Your task to perform on an android device: Search for good Italian restaurants Image 0: 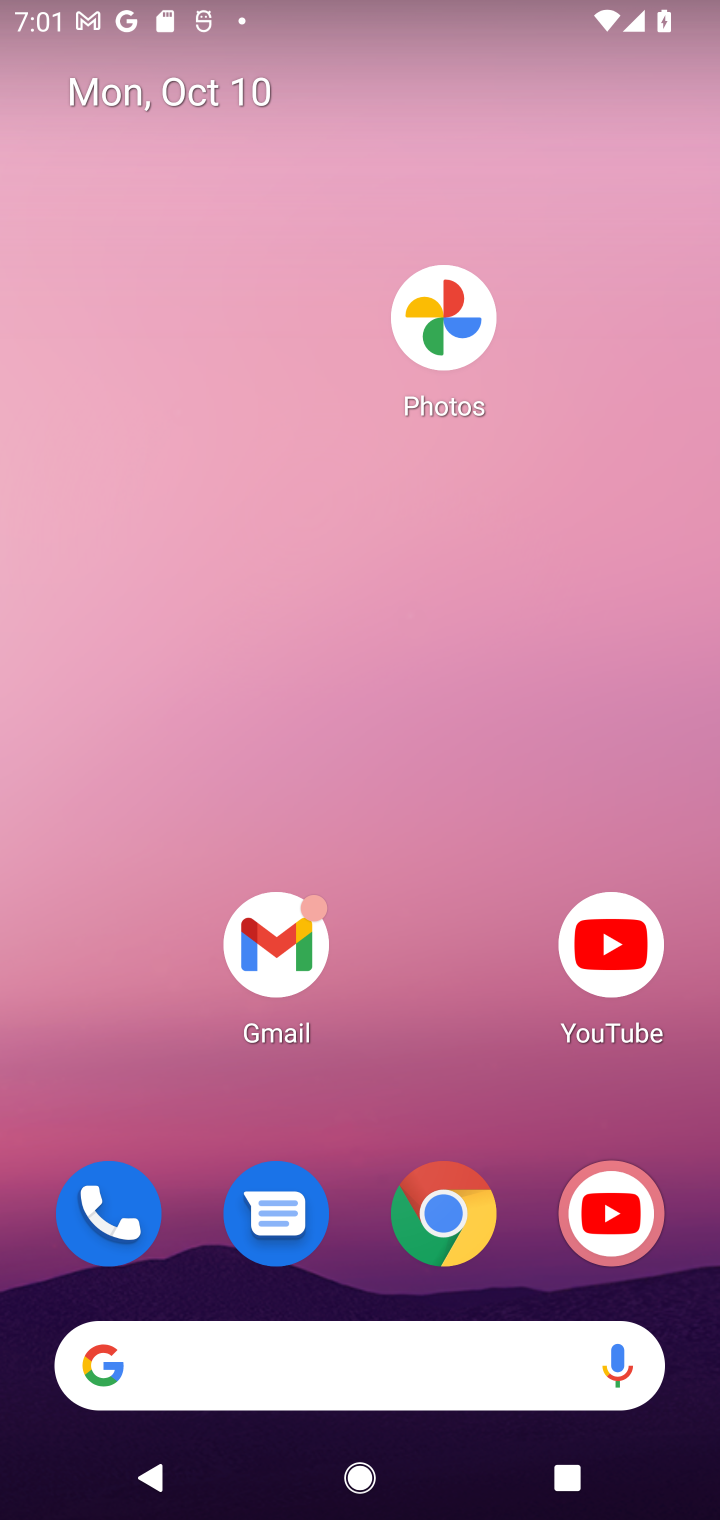
Step 0: click (346, 1355)
Your task to perform on an android device: Search for good Italian restaurants Image 1: 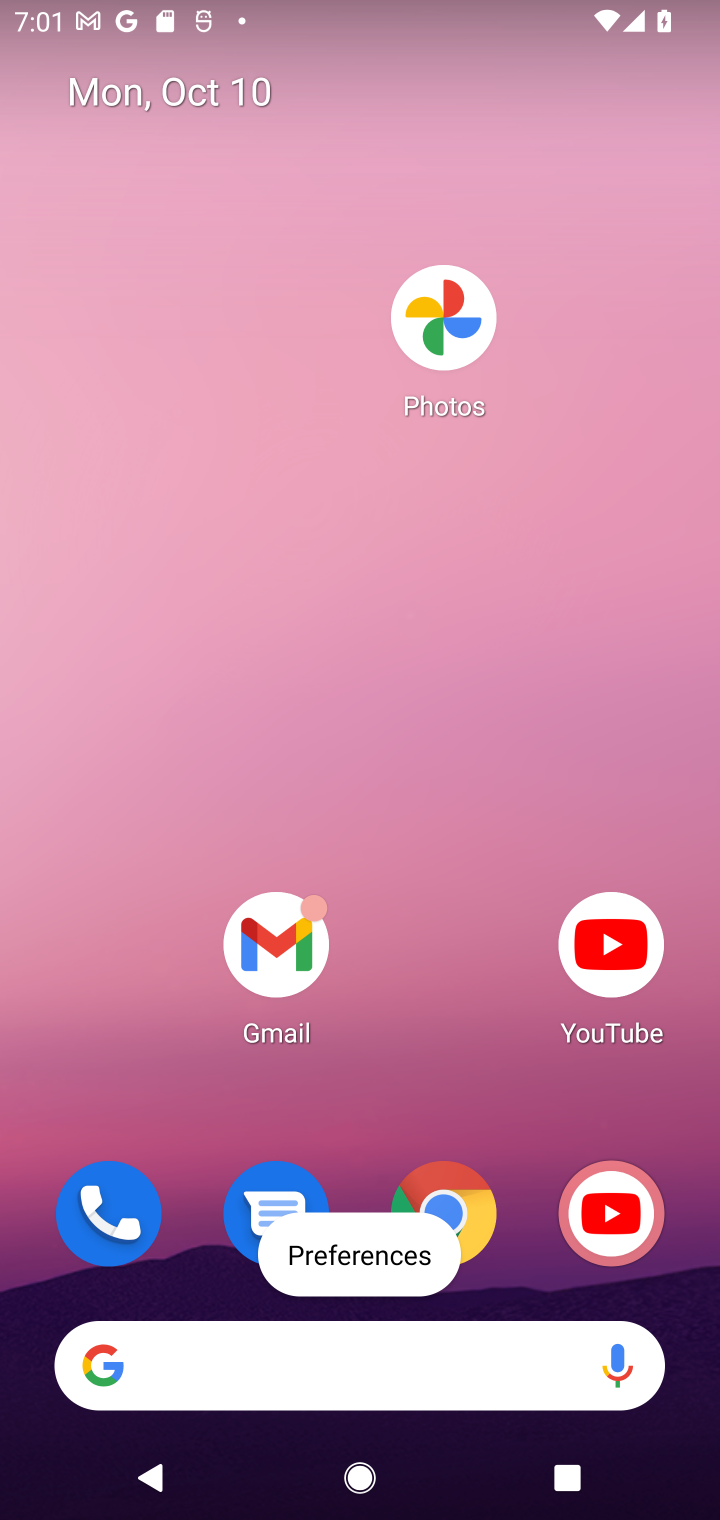
Step 1: click (344, 1374)
Your task to perform on an android device: Search for good Italian restaurants Image 2: 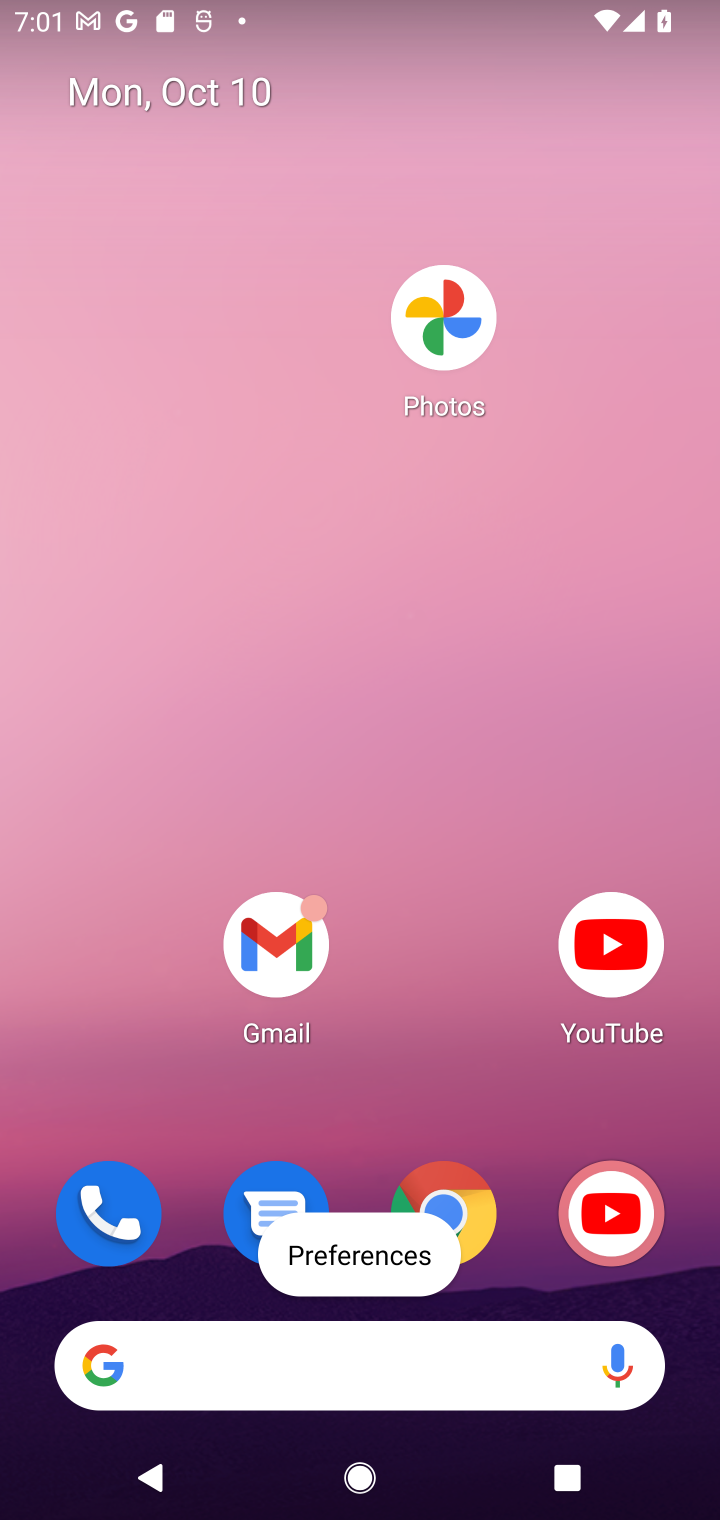
Step 2: click (278, 1371)
Your task to perform on an android device: Search for good Italian restaurants Image 3: 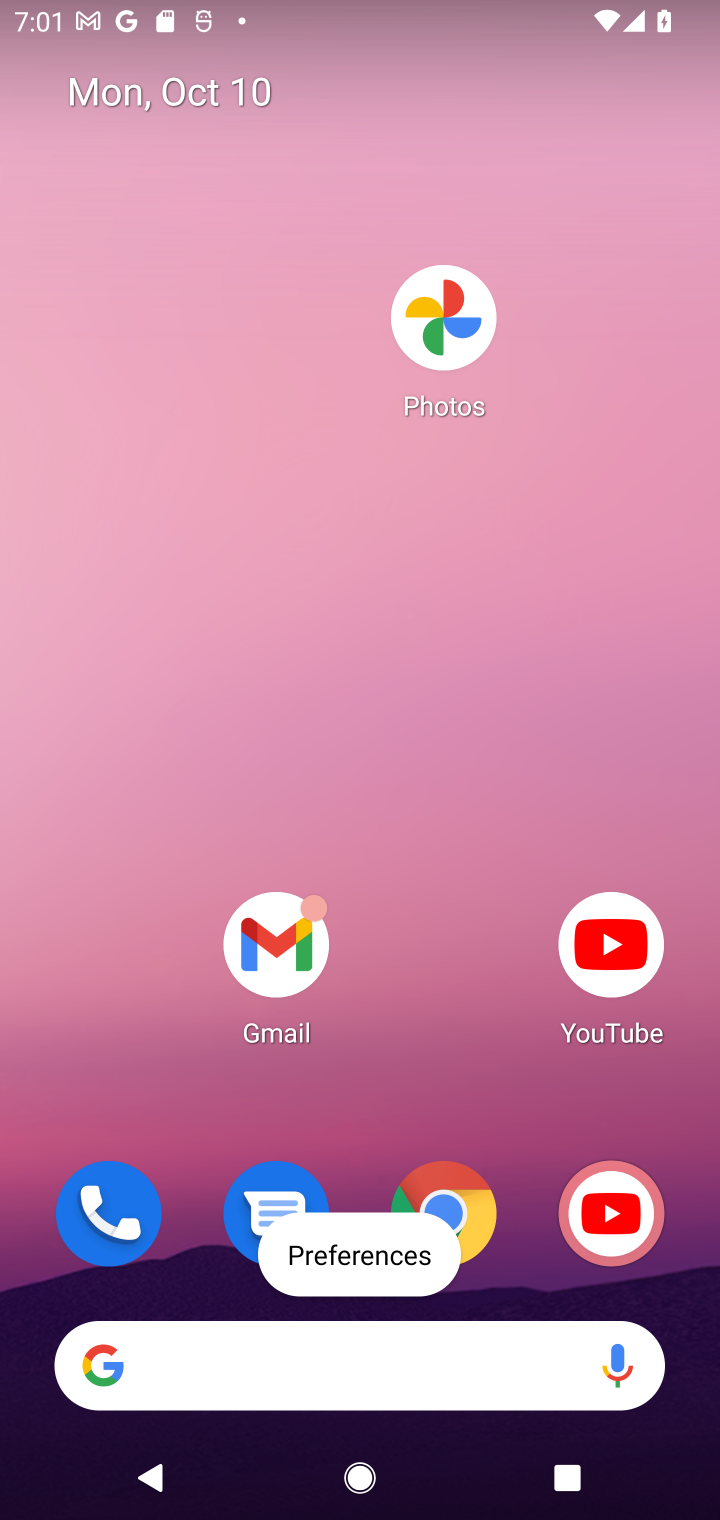
Step 3: click (355, 1333)
Your task to perform on an android device: Search for good Italian restaurants Image 4: 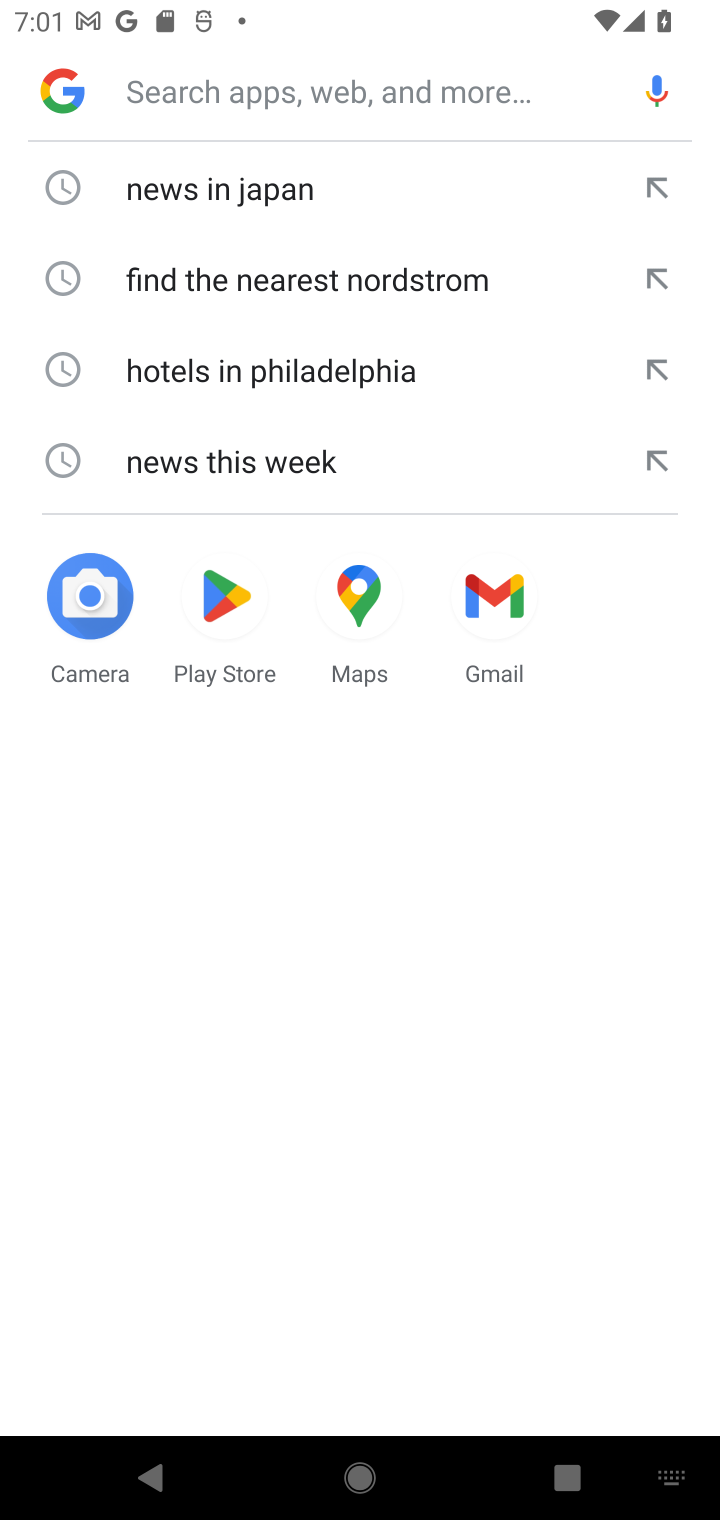
Step 4: type "good Italian restaurants"
Your task to perform on an android device: Search for good Italian restaurants Image 5: 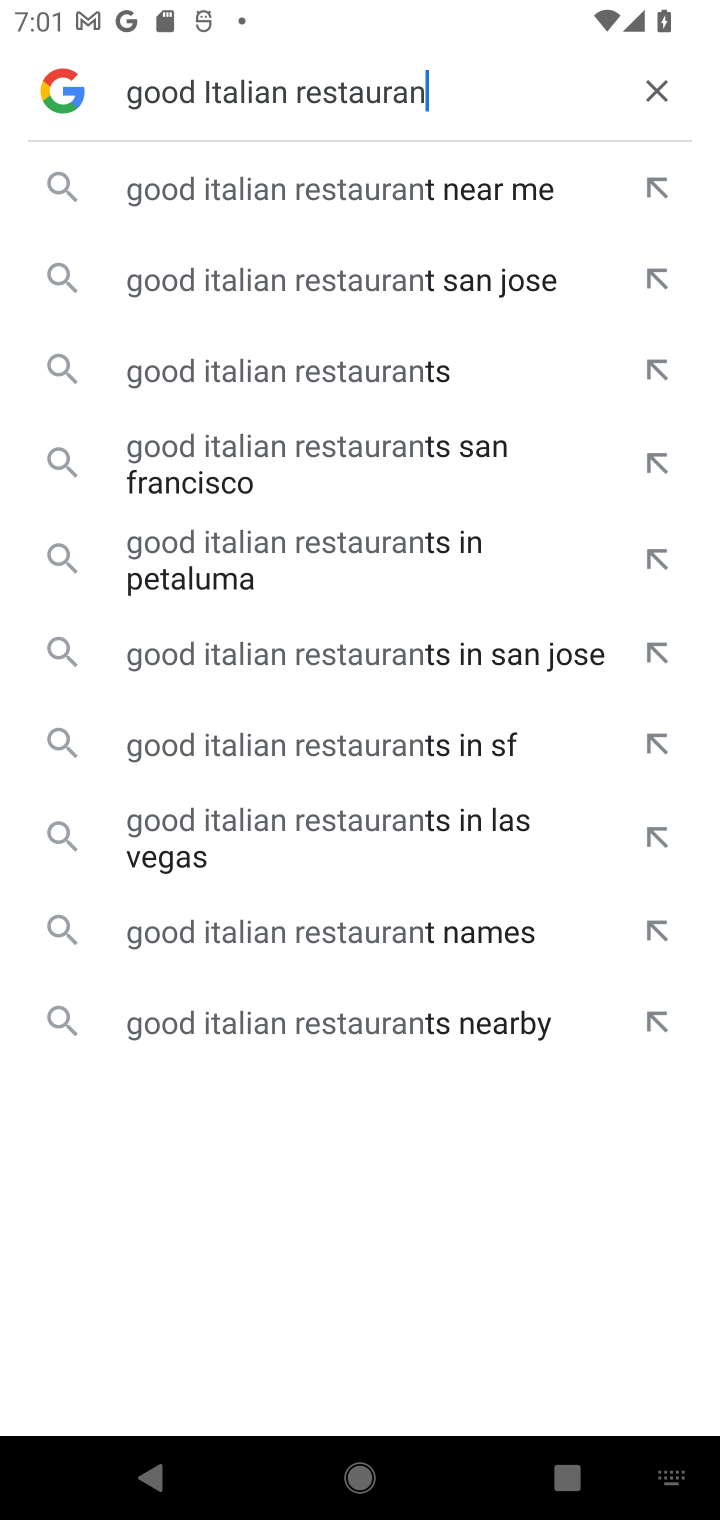
Step 5: type ""
Your task to perform on an android device: Search for good Italian restaurants Image 6: 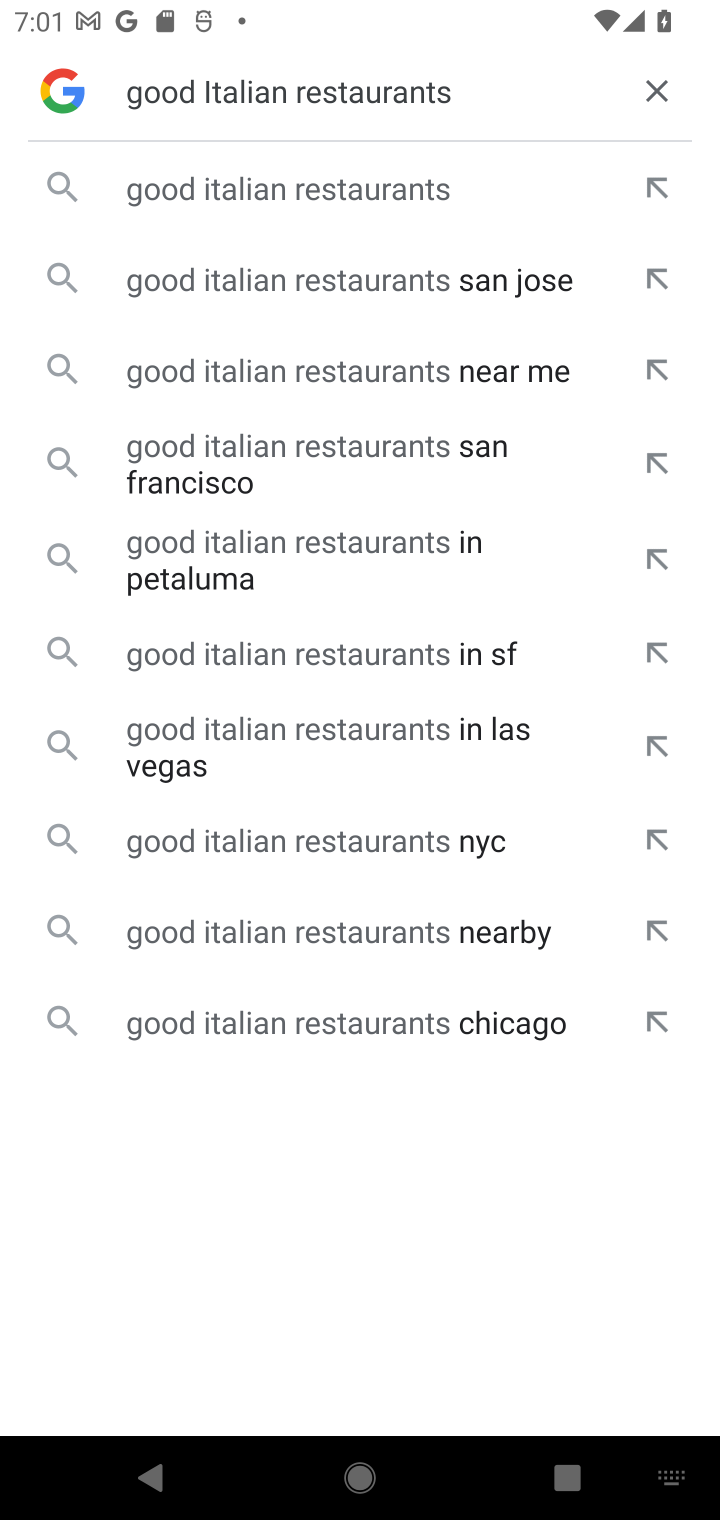
Step 6: click (357, 202)
Your task to perform on an android device: Search for good Italian restaurants Image 7: 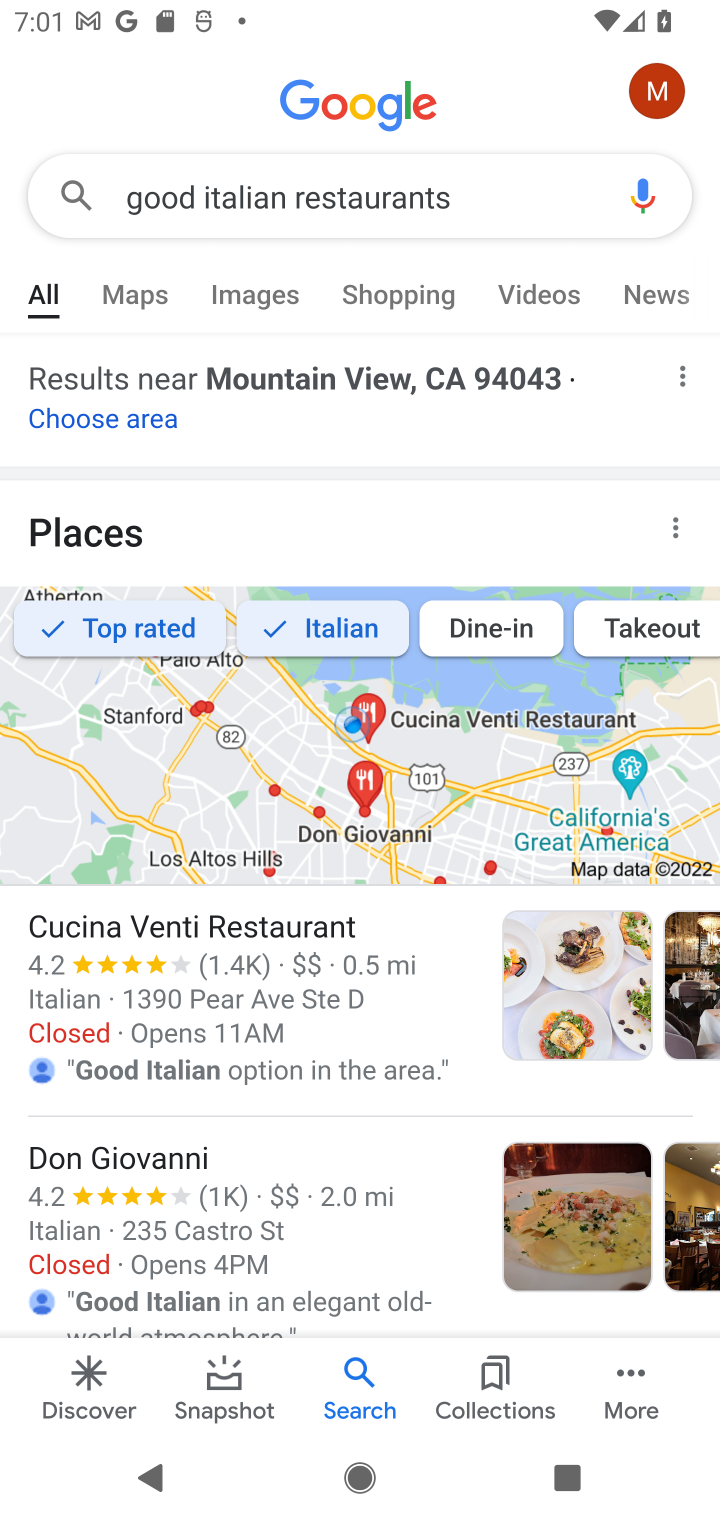
Step 7: task complete